Your task to perform on an android device: check data usage Image 0: 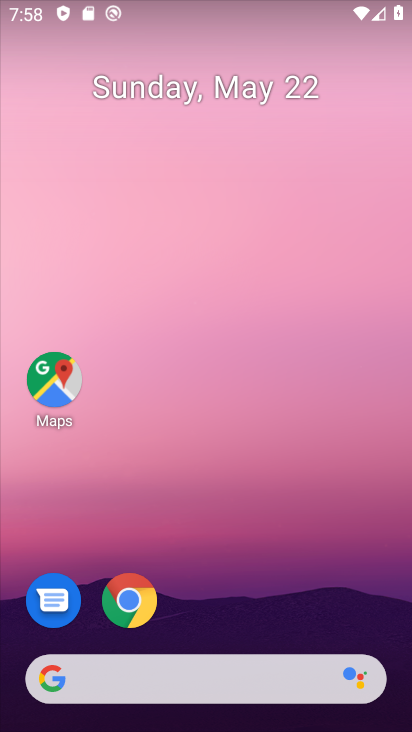
Step 0: drag from (217, 602) to (278, 227)
Your task to perform on an android device: check data usage Image 1: 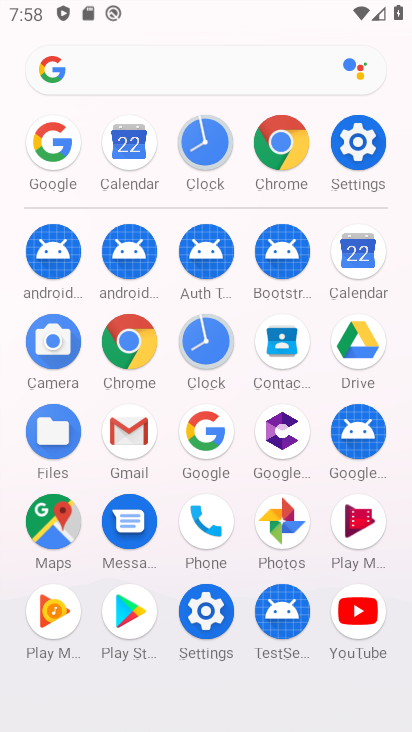
Step 1: click (360, 134)
Your task to perform on an android device: check data usage Image 2: 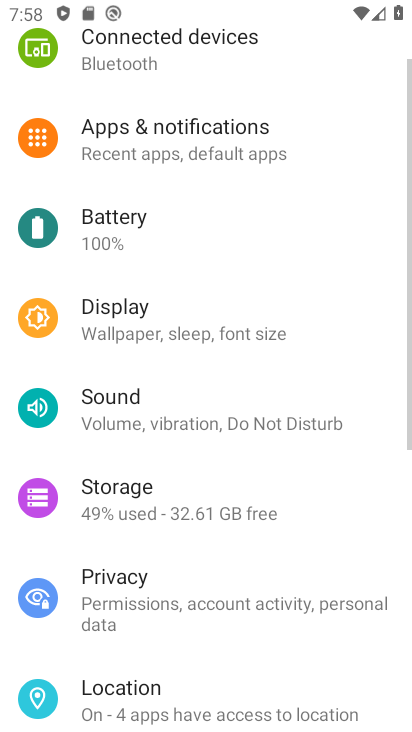
Step 2: drag from (209, 124) to (255, 513)
Your task to perform on an android device: check data usage Image 3: 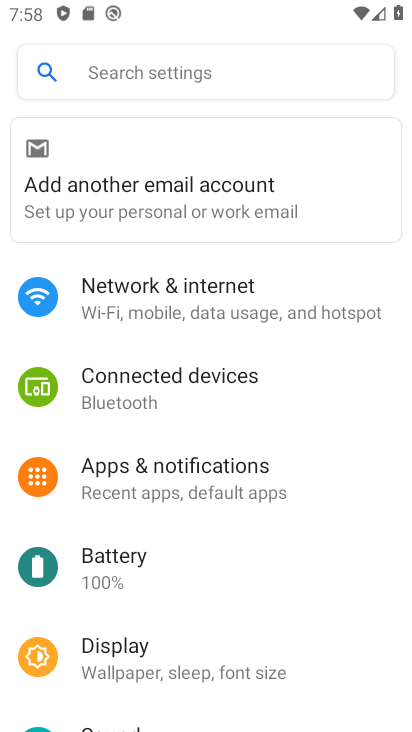
Step 3: click (187, 294)
Your task to perform on an android device: check data usage Image 4: 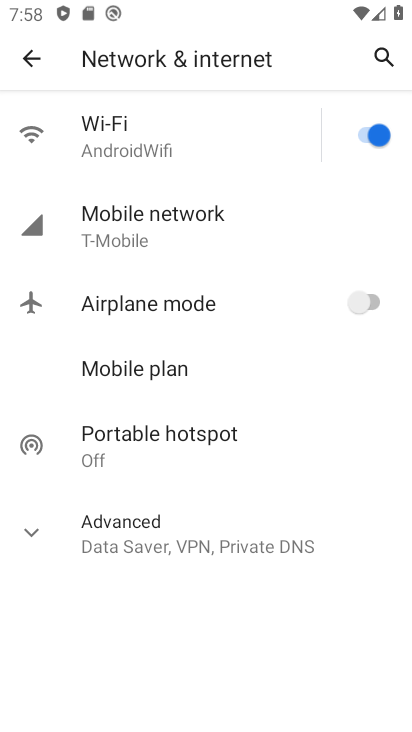
Step 4: click (156, 247)
Your task to perform on an android device: check data usage Image 5: 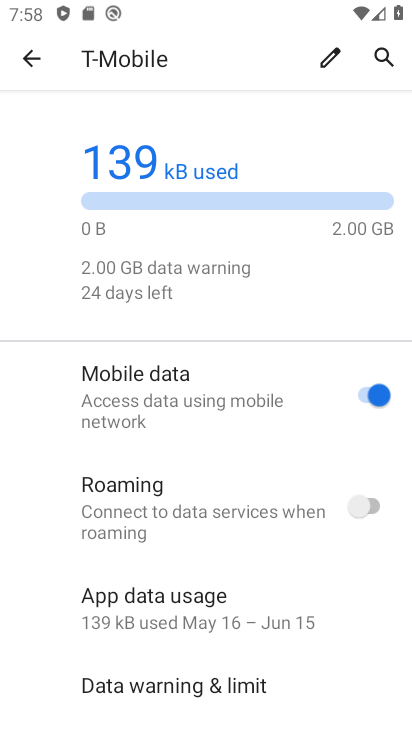
Step 5: task complete